Your task to perform on an android device: delete the emails in spam in the gmail app Image 0: 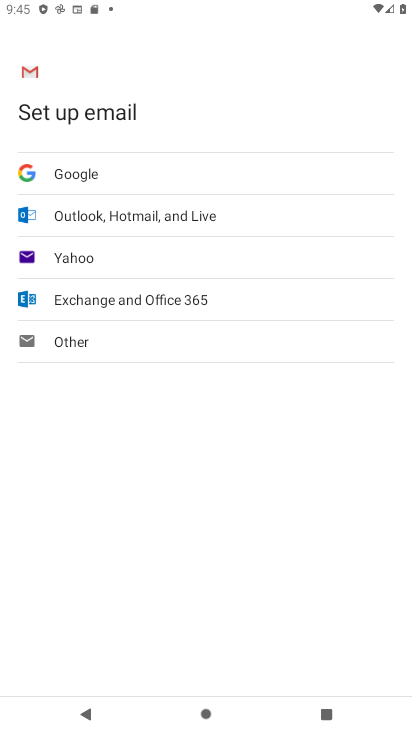
Step 0: press home button
Your task to perform on an android device: delete the emails in spam in the gmail app Image 1: 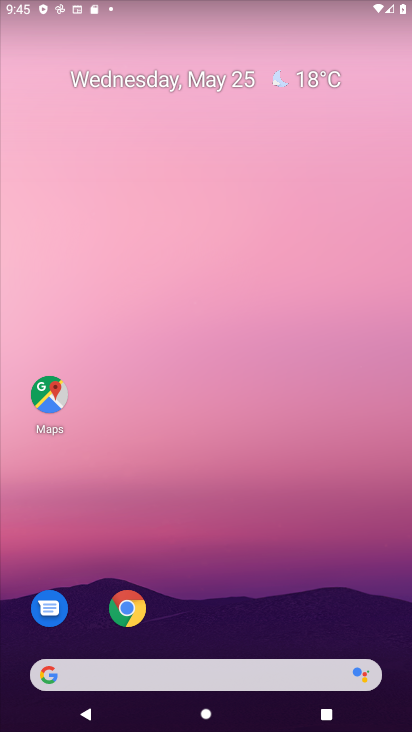
Step 1: drag from (233, 331) to (108, 3)
Your task to perform on an android device: delete the emails in spam in the gmail app Image 2: 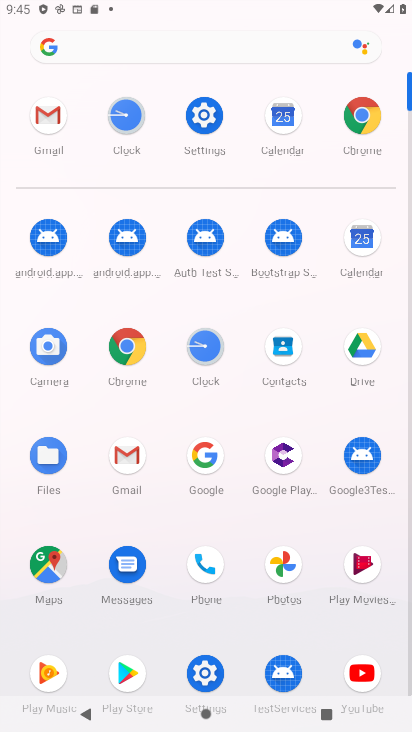
Step 2: click (129, 454)
Your task to perform on an android device: delete the emails in spam in the gmail app Image 3: 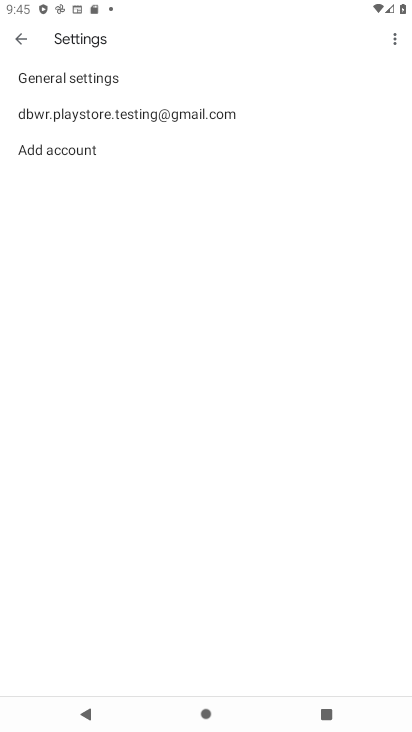
Step 3: click (13, 35)
Your task to perform on an android device: delete the emails in spam in the gmail app Image 4: 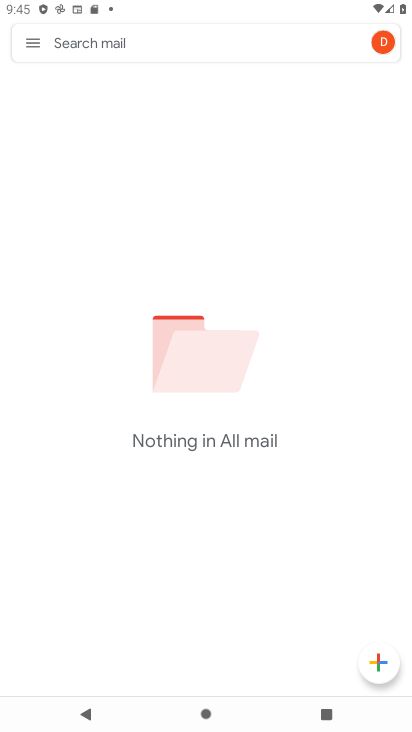
Step 4: click (35, 44)
Your task to perform on an android device: delete the emails in spam in the gmail app Image 5: 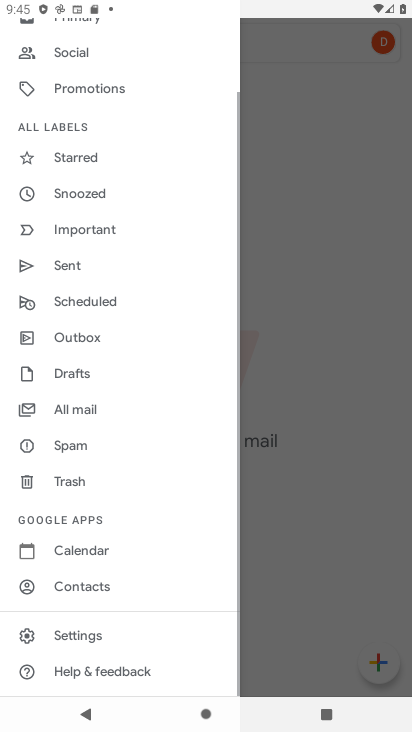
Step 5: click (107, 446)
Your task to perform on an android device: delete the emails in spam in the gmail app Image 6: 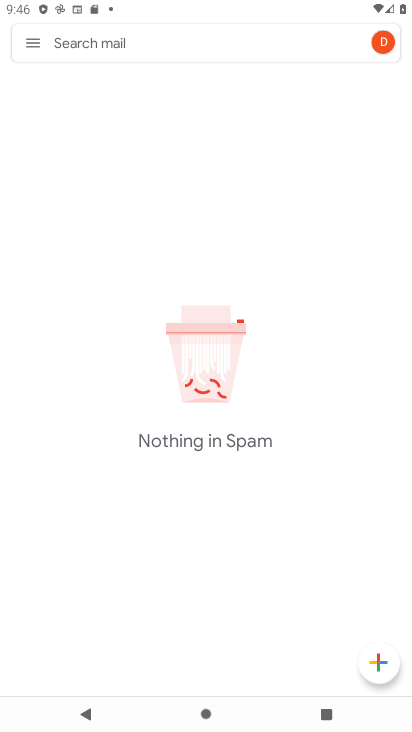
Step 6: task complete